Your task to perform on an android device: install app "Nova Launcher" Image 0: 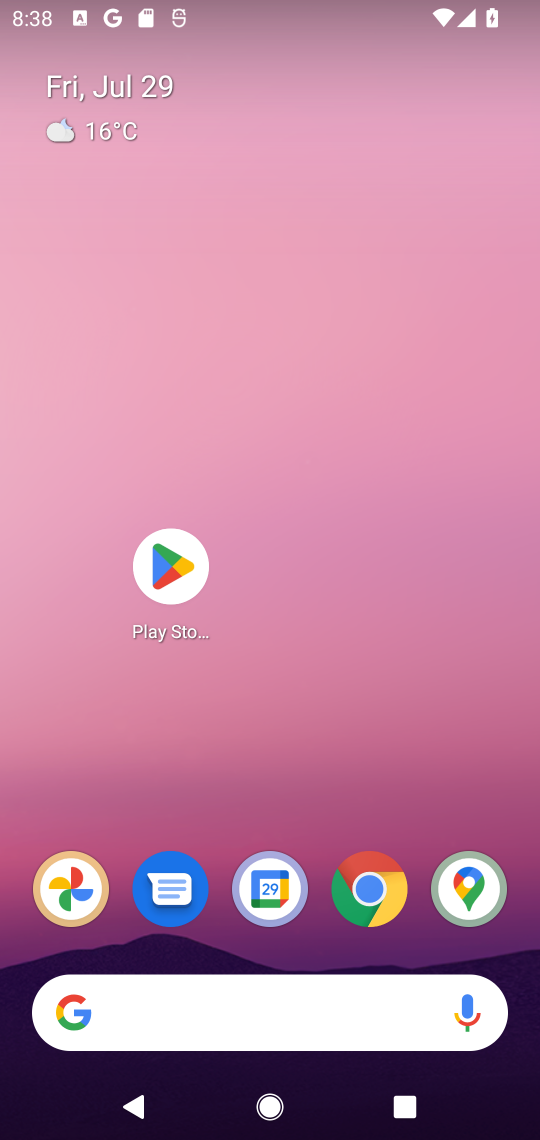
Step 0: click (158, 584)
Your task to perform on an android device: install app "Nova Launcher" Image 1: 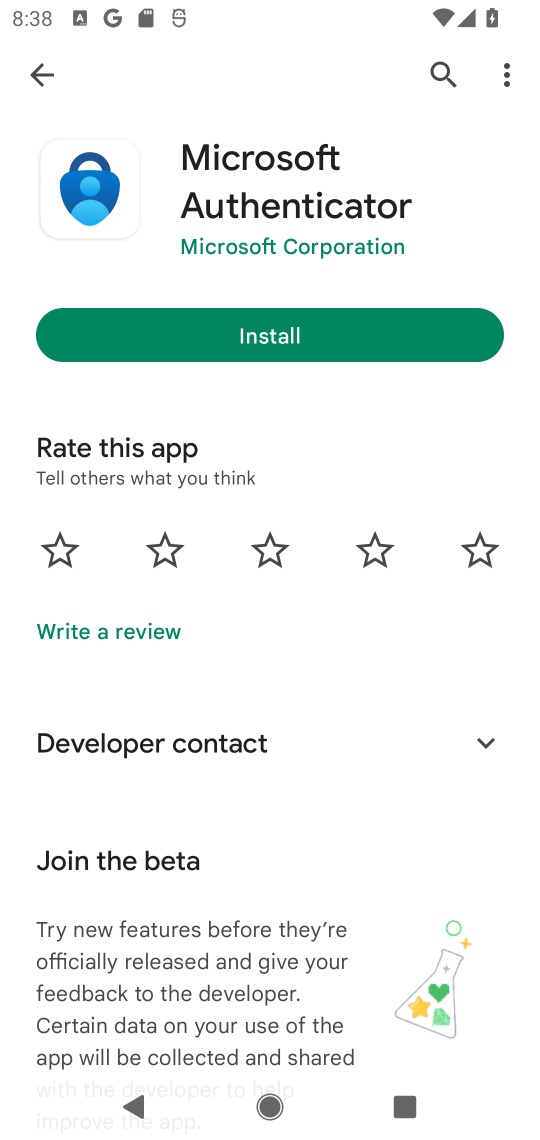
Step 1: click (435, 74)
Your task to perform on an android device: install app "Nova Launcher" Image 2: 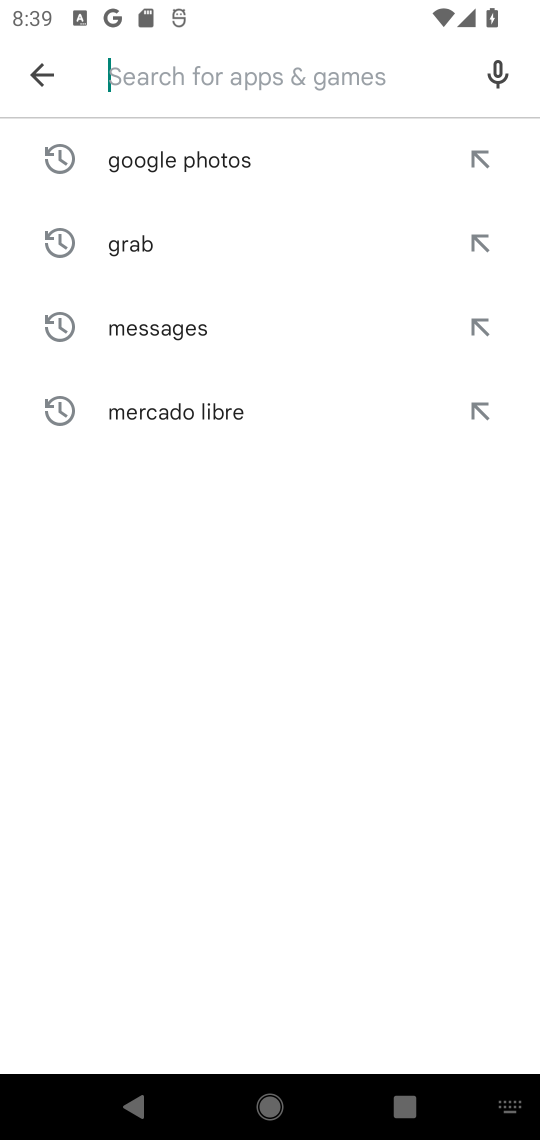
Step 2: type "Nova Launcher"
Your task to perform on an android device: install app "Nova Launcher" Image 3: 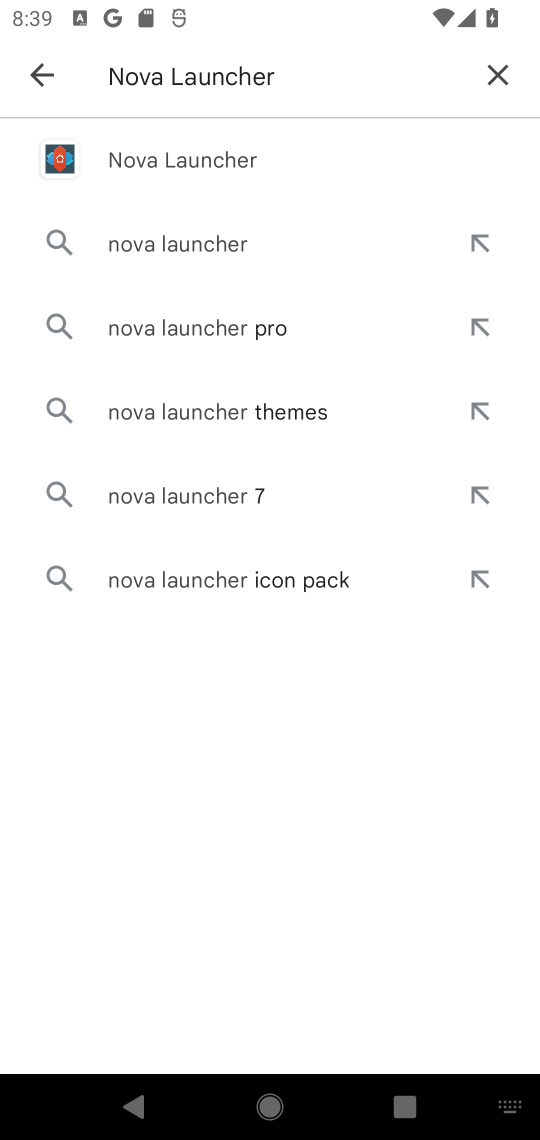
Step 3: click (271, 155)
Your task to perform on an android device: install app "Nova Launcher" Image 4: 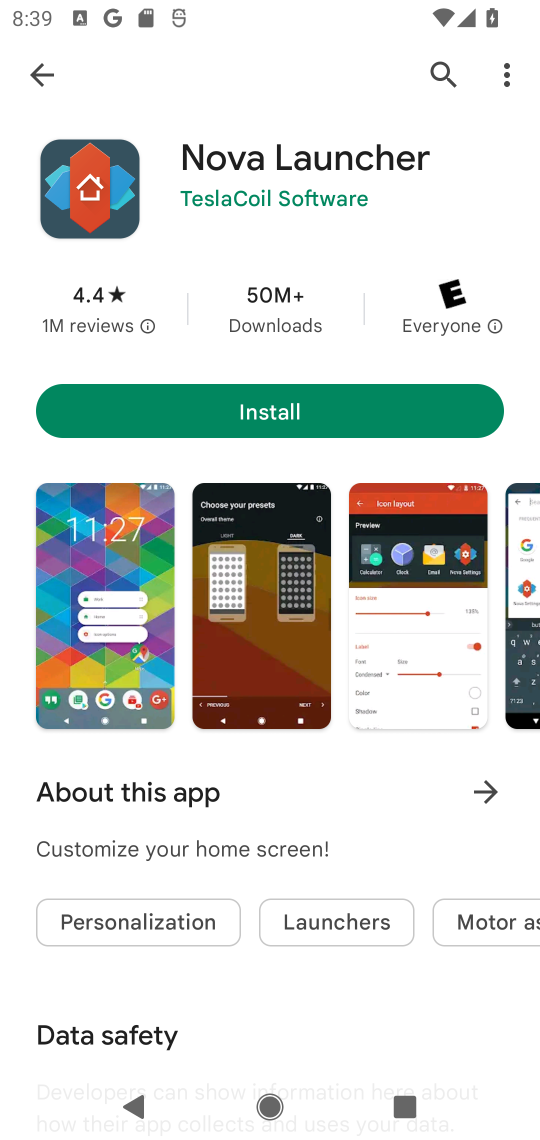
Step 4: click (275, 408)
Your task to perform on an android device: install app "Nova Launcher" Image 5: 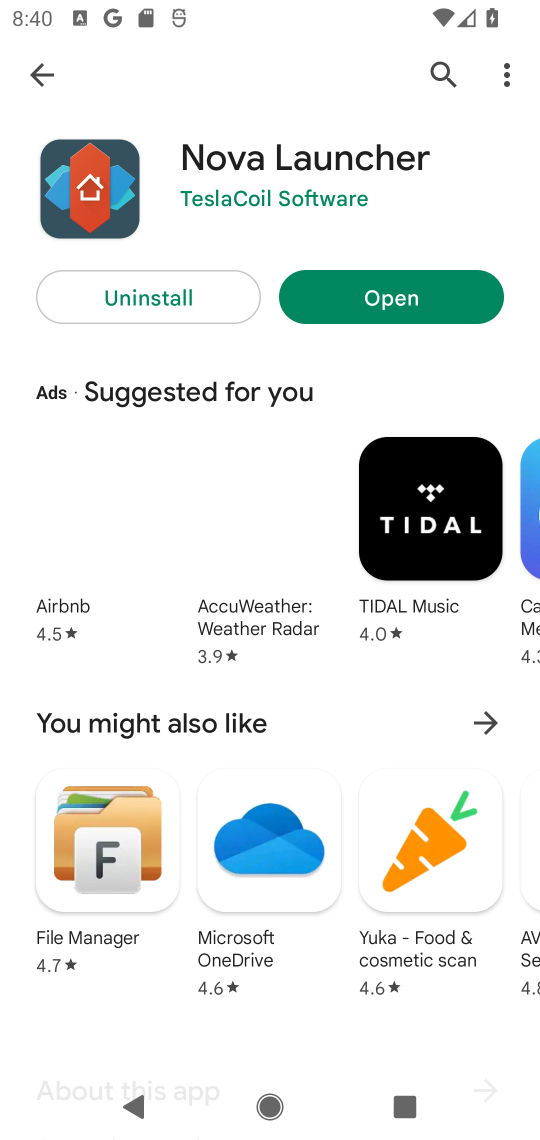
Step 5: task complete